Your task to perform on an android device: Open the calendar and show me this week's events? Image 0: 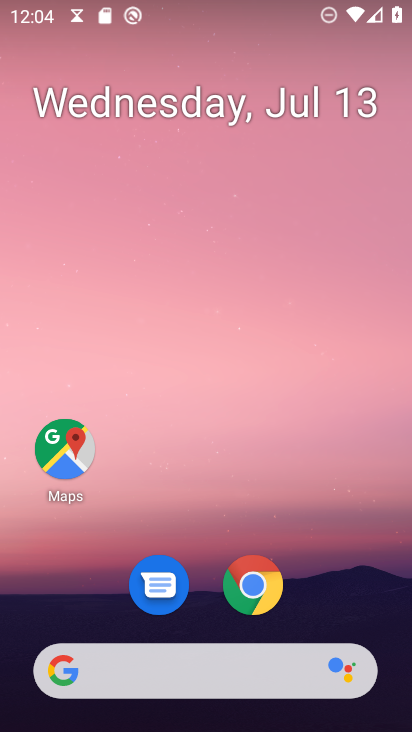
Step 0: drag from (163, 643) to (311, 138)
Your task to perform on an android device: Open the calendar and show me this week's events? Image 1: 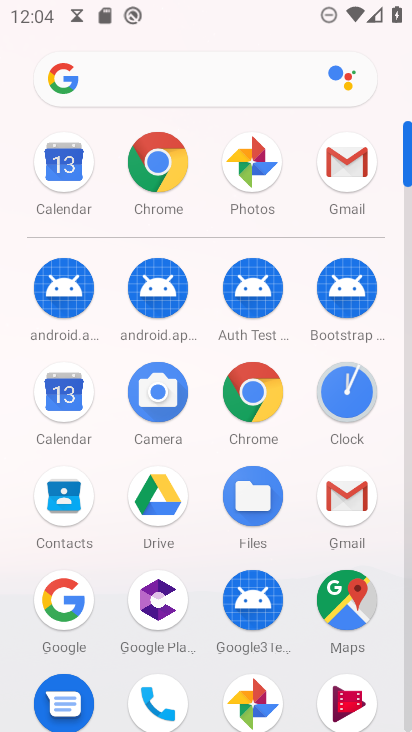
Step 1: click (72, 169)
Your task to perform on an android device: Open the calendar and show me this week's events? Image 2: 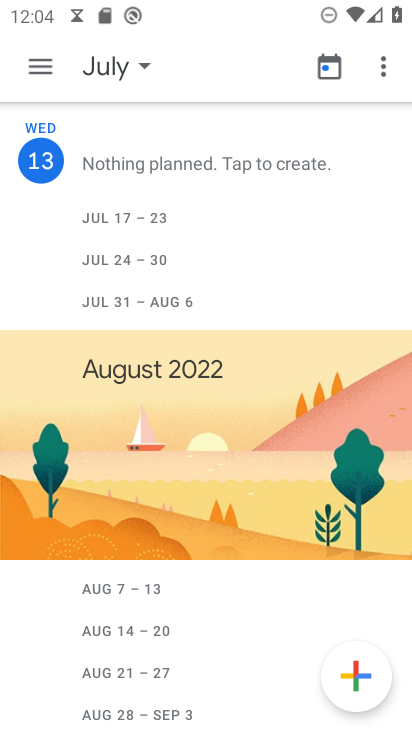
Step 2: task complete